Your task to perform on an android device: check storage Image 0: 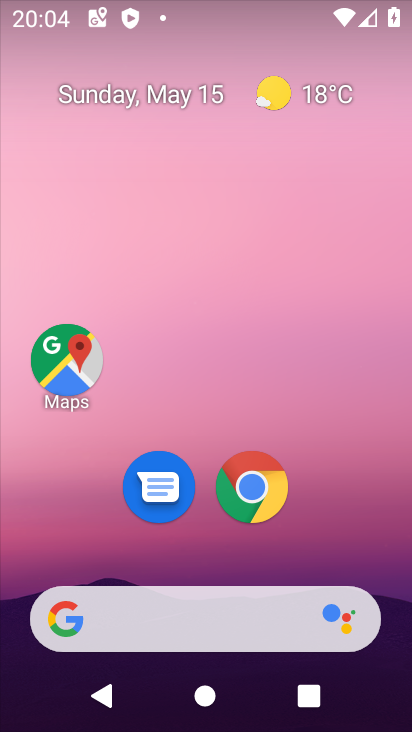
Step 0: drag from (388, 662) to (372, 221)
Your task to perform on an android device: check storage Image 1: 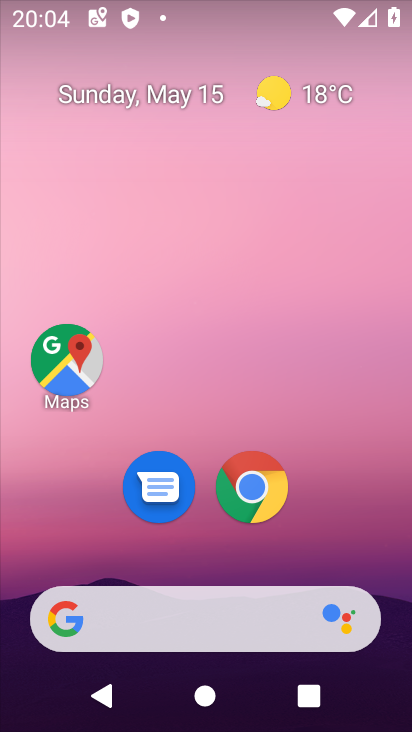
Step 1: drag from (398, 660) to (374, 306)
Your task to perform on an android device: check storage Image 2: 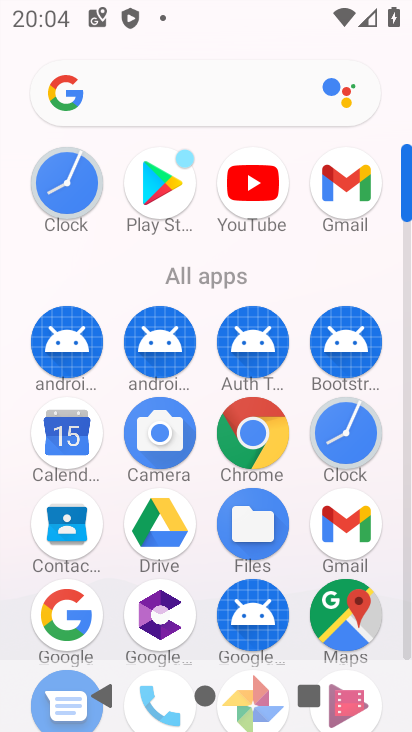
Step 2: drag from (403, 150) to (402, 82)
Your task to perform on an android device: check storage Image 3: 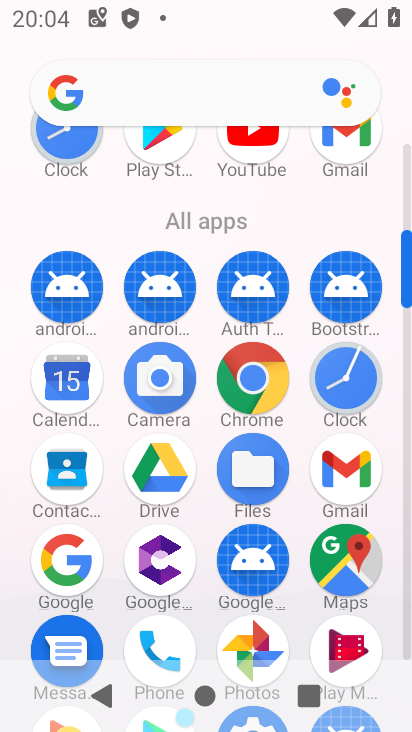
Step 3: drag from (403, 189) to (404, 127)
Your task to perform on an android device: check storage Image 4: 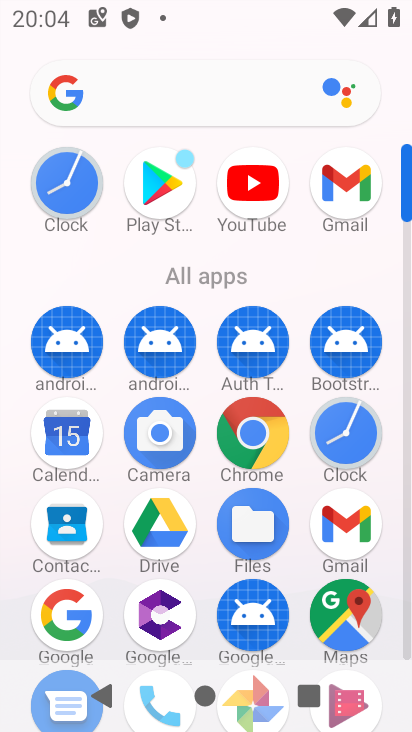
Step 4: drag from (405, 154) to (401, 105)
Your task to perform on an android device: check storage Image 5: 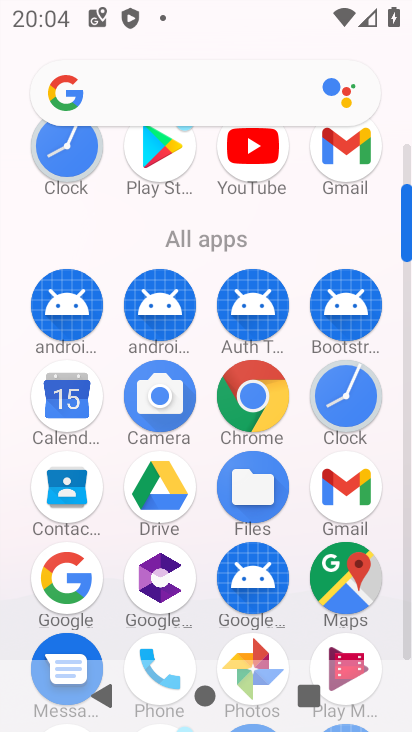
Step 5: drag from (408, 169) to (410, 113)
Your task to perform on an android device: check storage Image 6: 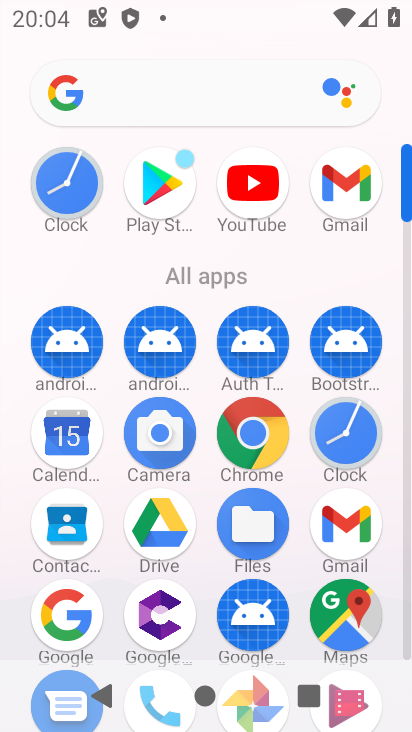
Step 6: drag from (404, 163) to (401, 118)
Your task to perform on an android device: check storage Image 7: 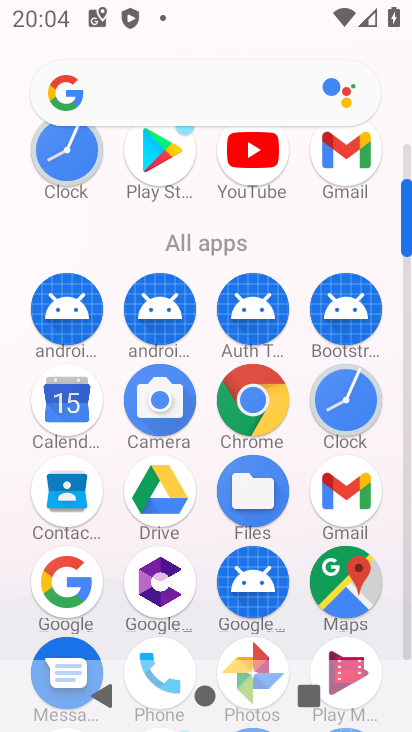
Step 7: click (410, 190)
Your task to perform on an android device: check storage Image 8: 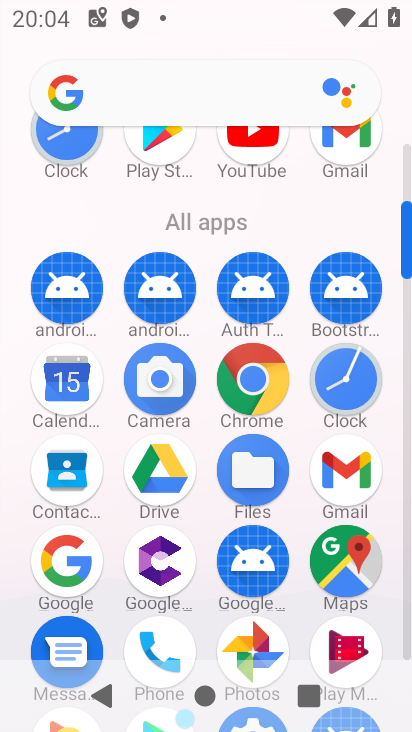
Step 8: click (405, 219)
Your task to perform on an android device: check storage Image 9: 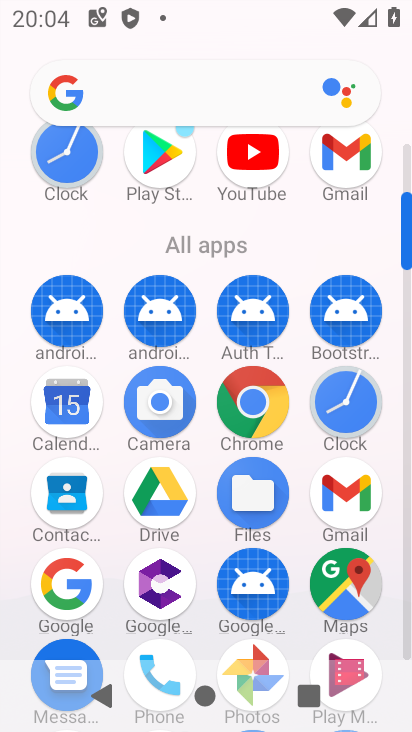
Step 9: drag from (408, 232) to (408, 158)
Your task to perform on an android device: check storage Image 10: 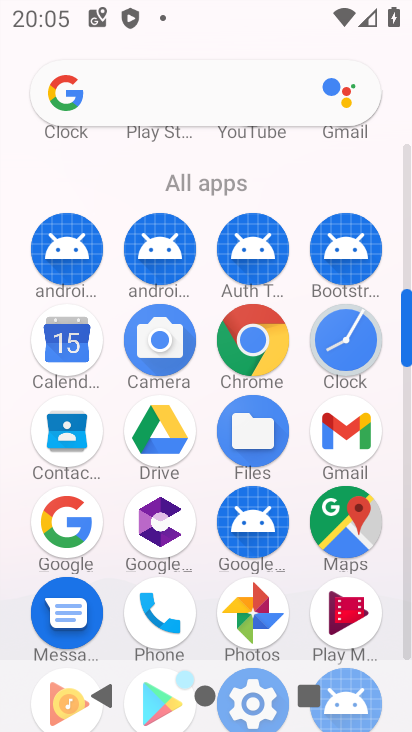
Step 10: drag from (404, 302) to (404, 211)
Your task to perform on an android device: check storage Image 11: 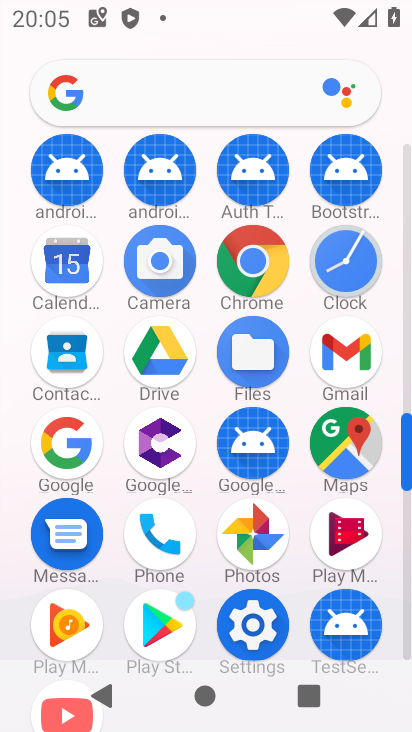
Step 11: click (242, 621)
Your task to perform on an android device: check storage Image 12: 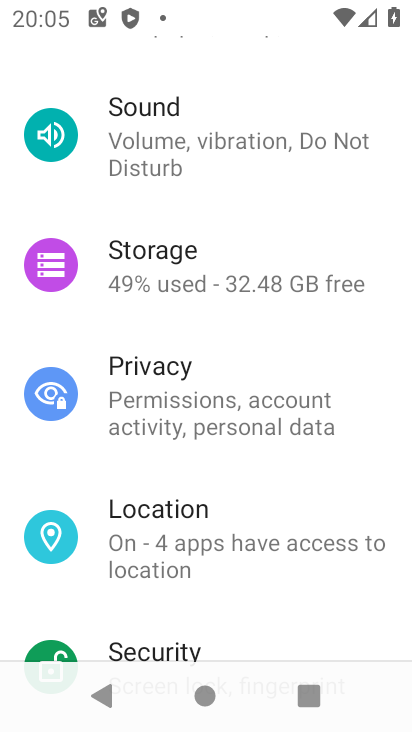
Step 12: drag from (283, 576) to (290, 372)
Your task to perform on an android device: check storage Image 13: 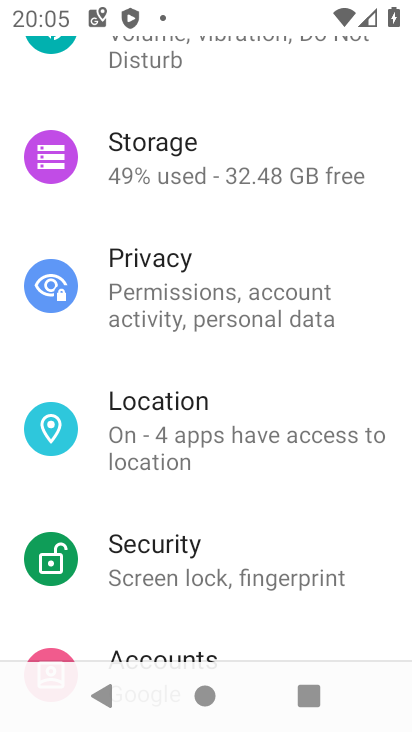
Step 13: drag from (287, 623) to (286, 425)
Your task to perform on an android device: check storage Image 14: 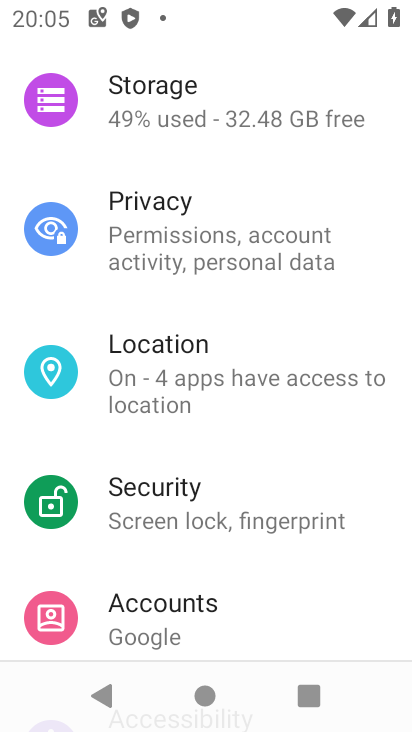
Step 14: drag from (286, 607) to (282, 434)
Your task to perform on an android device: check storage Image 15: 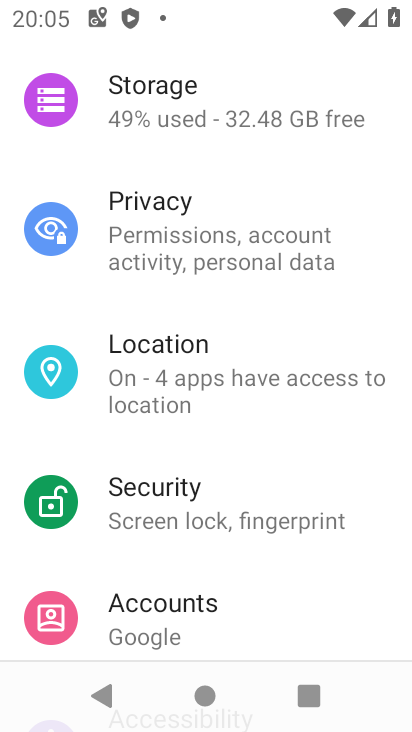
Step 15: click (163, 102)
Your task to perform on an android device: check storage Image 16: 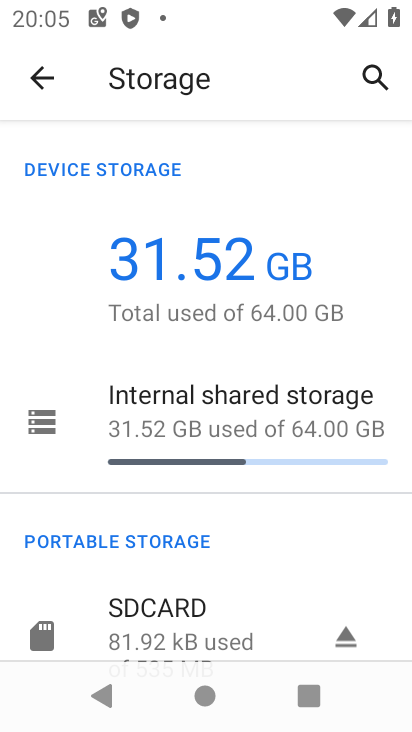
Step 16: task complete